Your task to perform on an android device: turn off location history Image 0: 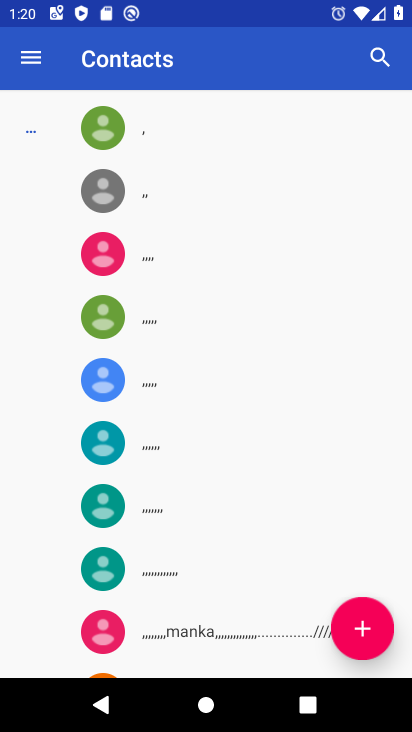
Step 0: press home button
Your task to perform on an android device: turn off location history Image 1: 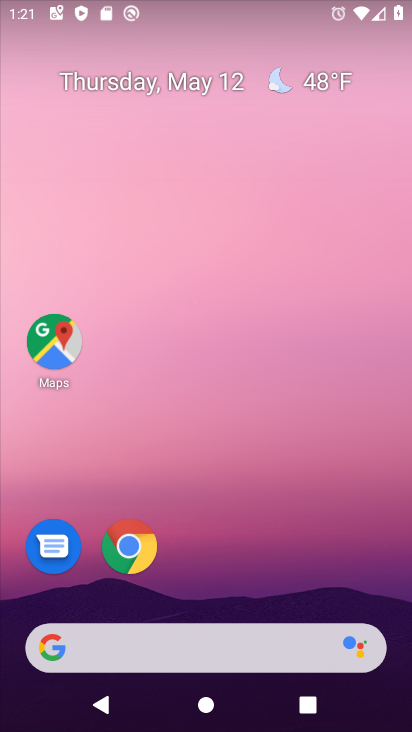
Step 1: drag from (228, 654) to (385, 225)
Your task to perform on an android device: turn off location history Image 2: 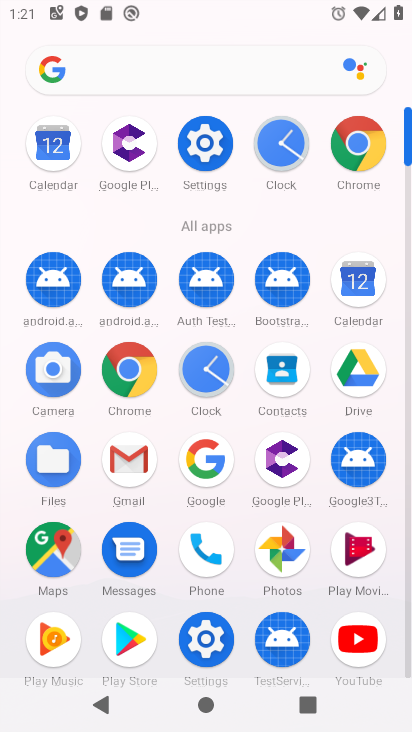
Step 2: click (46, 551)
Your task to perform on an android device: turn off location history Image 3: 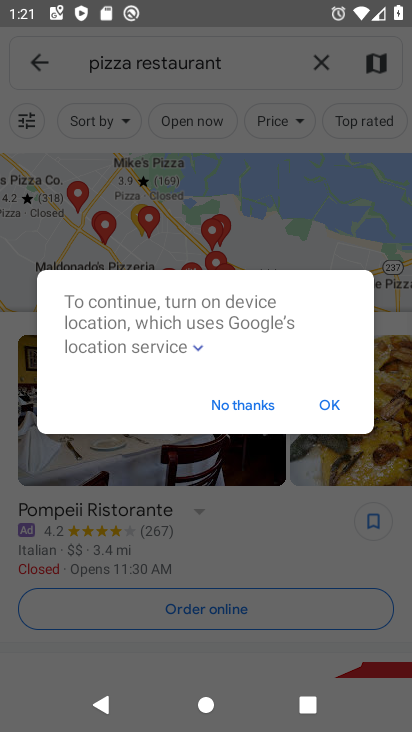
Step 3: click (340, 413)
Your task to perform on an android device: turn off location history Image 4: 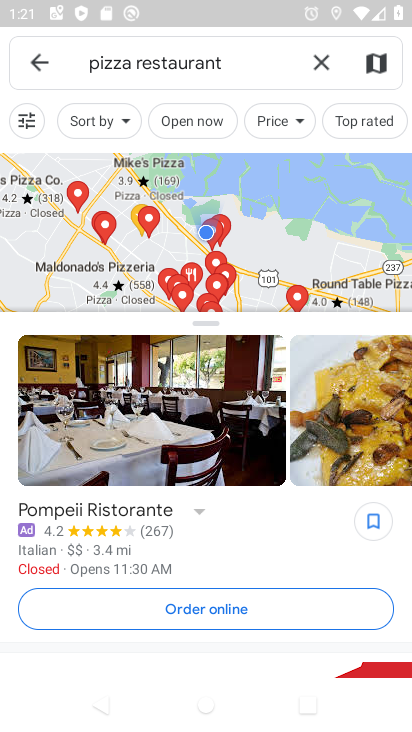
Step 4: click (48, 63)
Your task to perform on an android device: turn off location history Image 5: 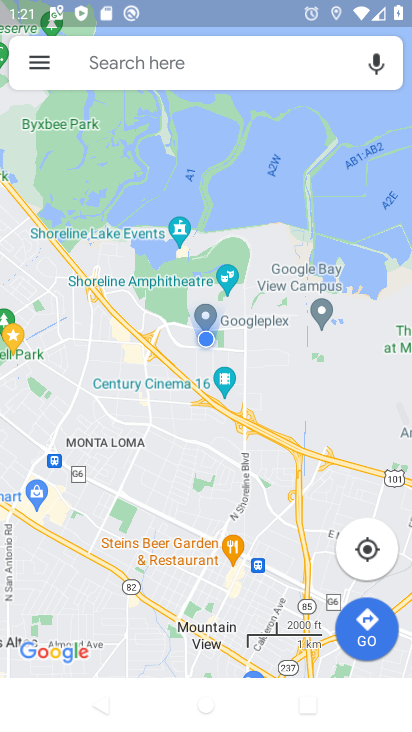
Step 5: click (38, 65)
Your task to perform on an android device: turn off location history Image 6: 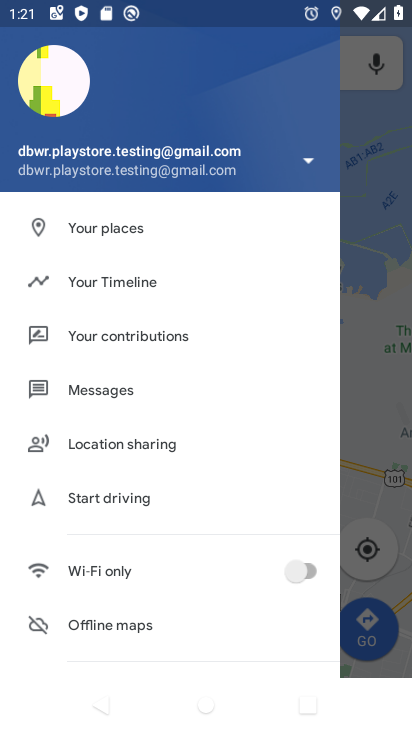
Step 6: click (111, 281)
Your task to perform on an android device: turn off location history Image 7: 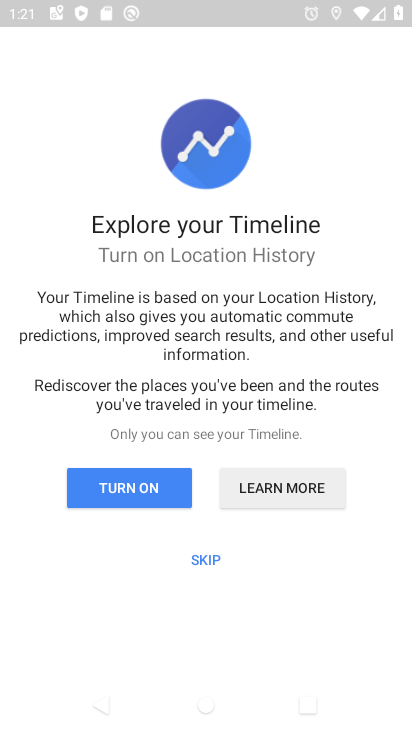
Step 7: click (210, 556)
Your task to perform on an android device: turn off location history Image 8: 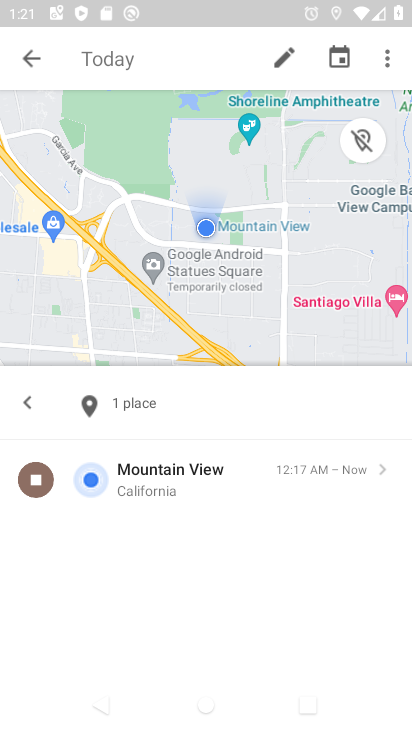
Step 8: click (385, 57)
Your task to perform on an android device: turn off location history Image 9: 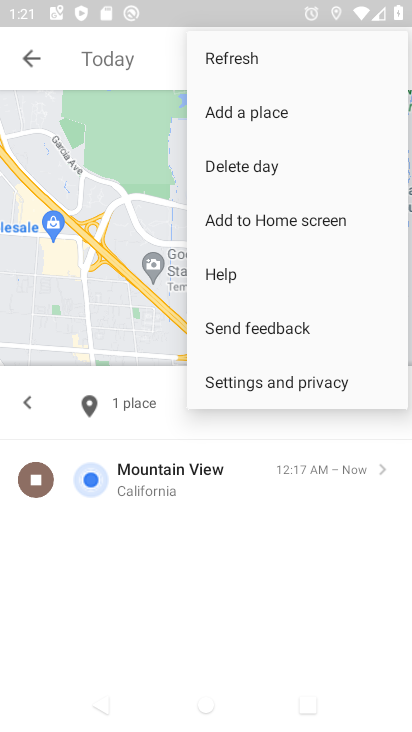
Step 9: click (259, 388)
Your task to perform on an android device: turn off location history Image 10: 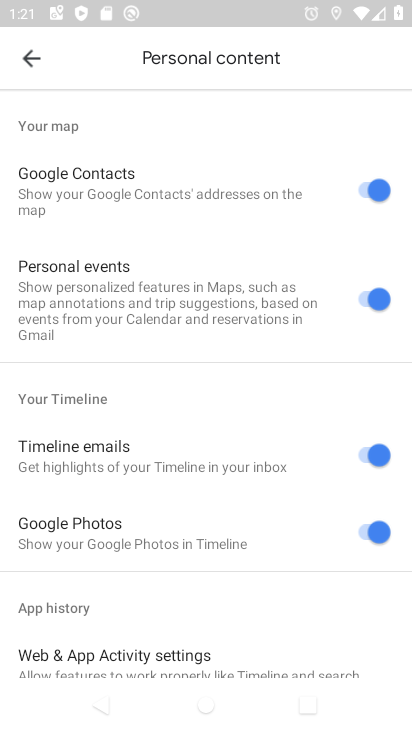
Step 10: drag from (243, 633) to (360, 231)
Your task to perform on an android device: turn off location history Image 11: 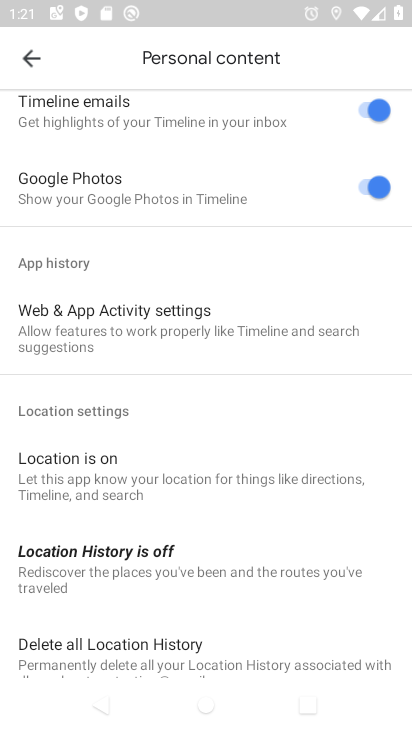
Step 11: click (117, 559)
Your task to perform on an android device: turn off location history Image 12: 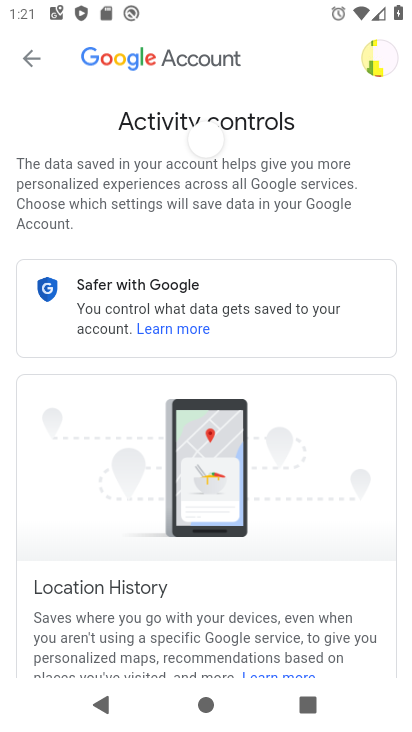
Step 12: drag from (261, 568) to (349, 278)
Your task to perform on an android device: turn off location history Image 13: 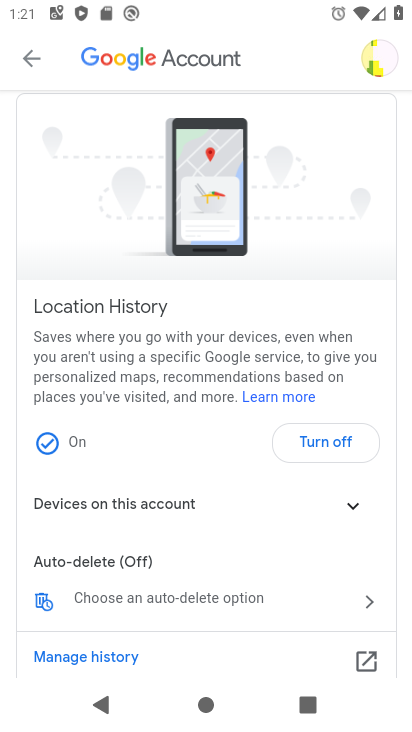
Step 13: drag from (264, 588) to (343, 201)
Your task to perform on an android device: turn off location history Image 14: 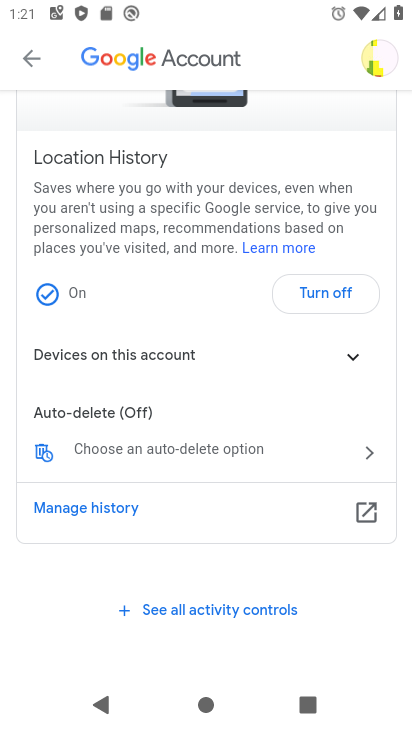
Step 14: click (321, 293)
Your task to perform on an android device: turn off location history Image 15: 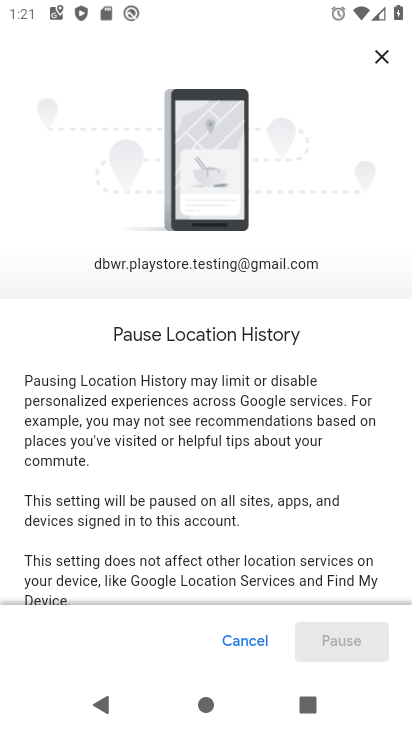
Step 15: drag from (295, 553) to (411, 123)
Your task to perform on an android device: turn off location history Image 16: 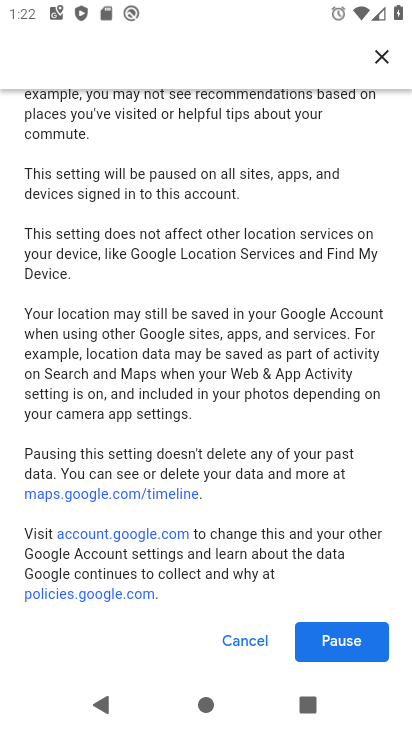
Step 16: click (349, 646)
Your task to perform on an android device: turn off location history Image 17: 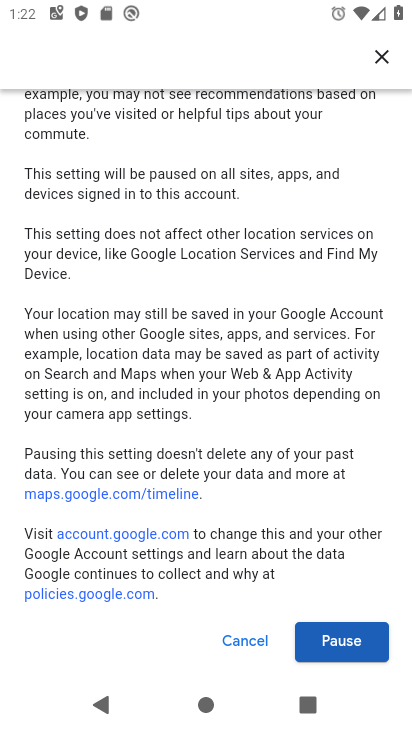
Step 17: click (336, 641)
Your task to perform on an android device: turn off location history Image 18: 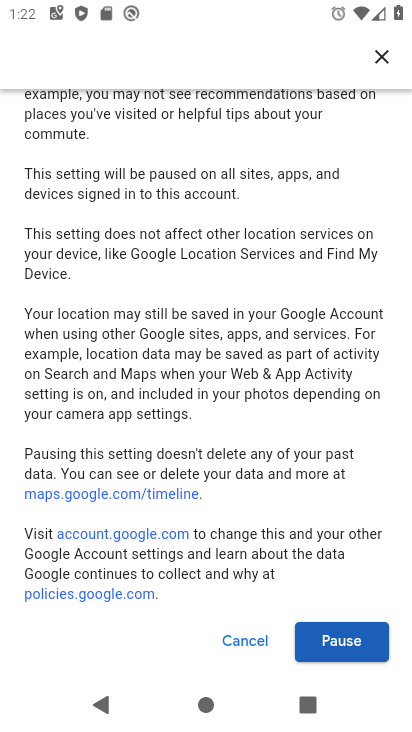
Step 18: click (342, 639)
Your task to perform on an android device: turn off location history Image 19: 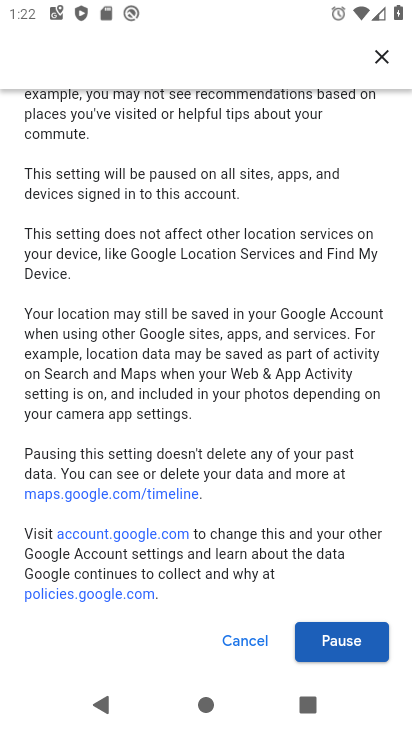
Step 19: click (344, 642)
Your task to perform on an android device: turn off location history Image 20: 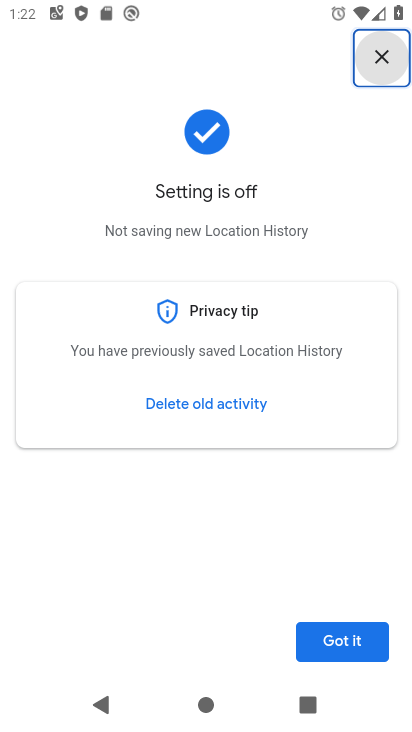
Step 20: click (347, 641)
Your task to perform on an android device: turn off location history Image 21: 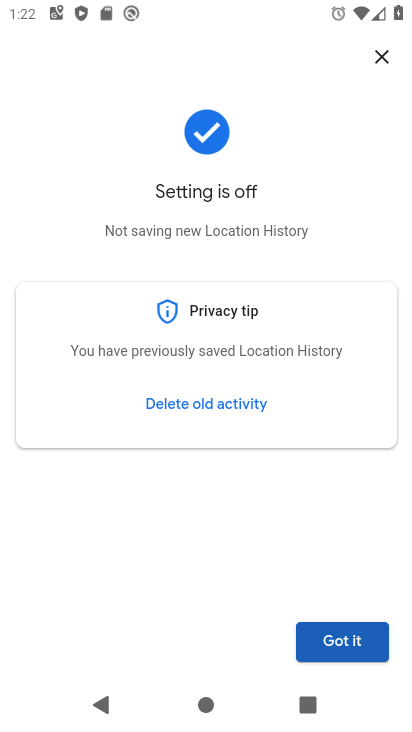
Step 21: task complete